Your task to perform on an android device: Go to sound settings Image 0: 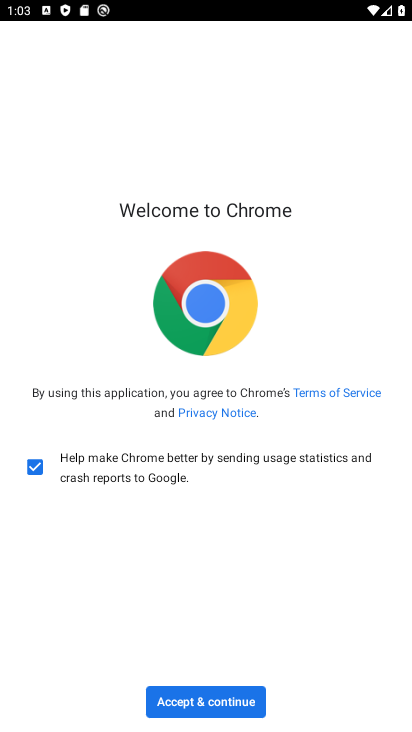
Step 0: press home button
Your task to perform on an android device: Go to sound settings Image 1: 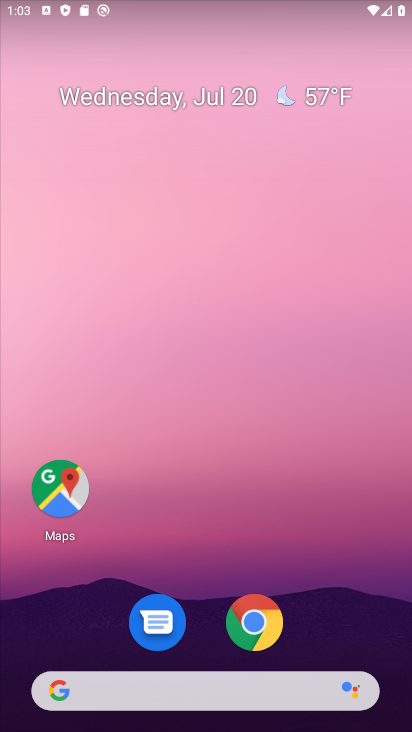
Step 1: drag from (211, 556) to (192, 75)
Your task to perform on an android device: Go to sound settings Image 2: 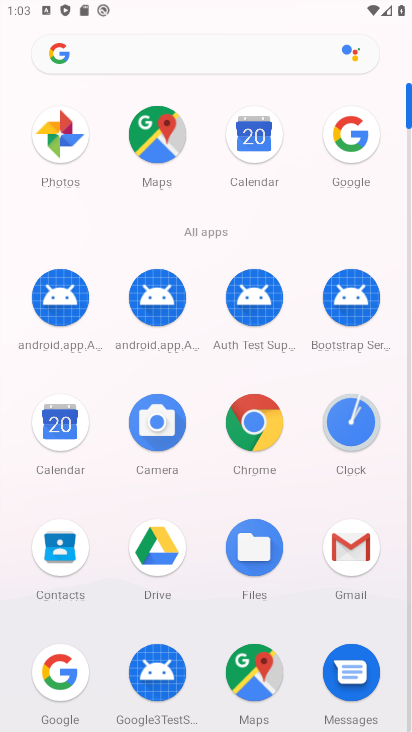
Step 2: drag from (190, 527) to (214, 175)
Your task to perform on an android device: Go to sound settings Image 3: 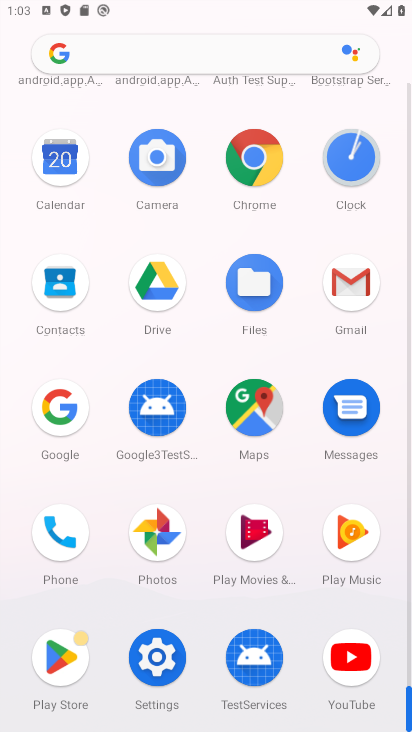
Step 3: click (162, 654)
Your task to perform on an android device: Go to sound settings Image 4: 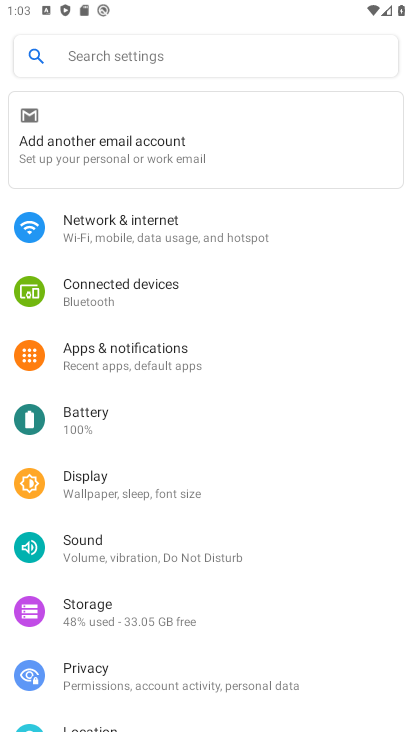
Step 4: click (137, 535)
Your task to perform on an android device: Go to sound settings Image 5: 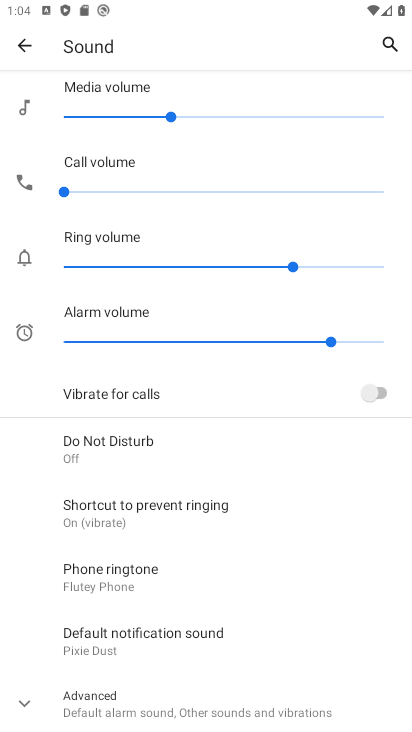
Step 5: task complete